Your task to perform on an android device: Open Google Maps Image 0: 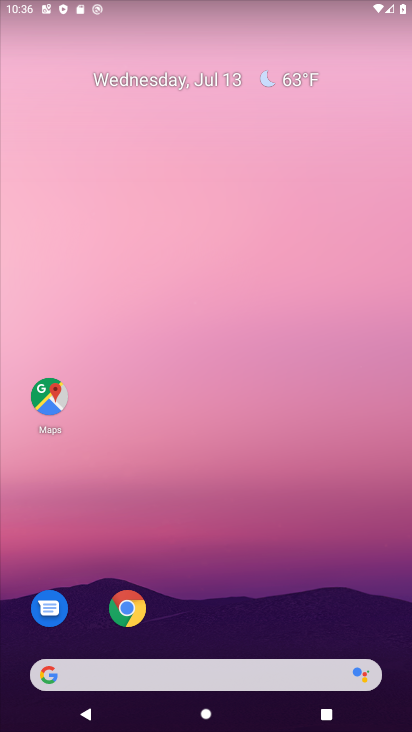
Step 0: drag from (316, 585) to (304, 13)
Your task to perform on an android device: Open Google Maps Image 1: 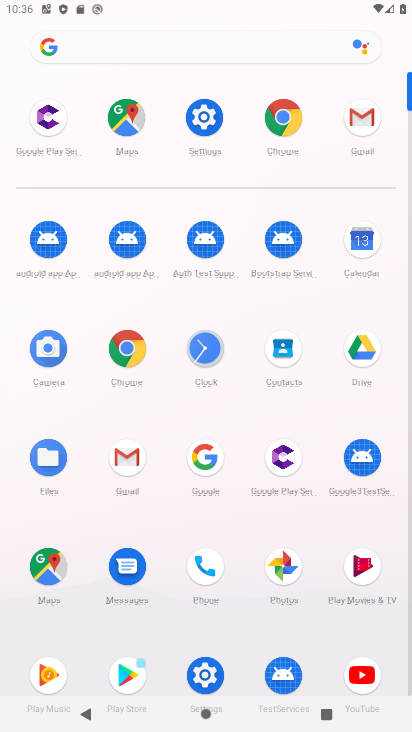
Step 1: click (123, 102)
Your task to perform on an android device: Open Google Maps Image 2: 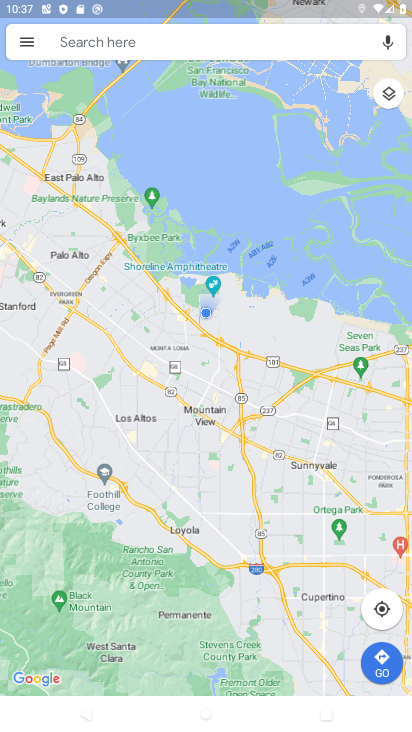
Step 2: task complete